Your task to perform on an android device: Show me the alarms in the clock app Image 0: 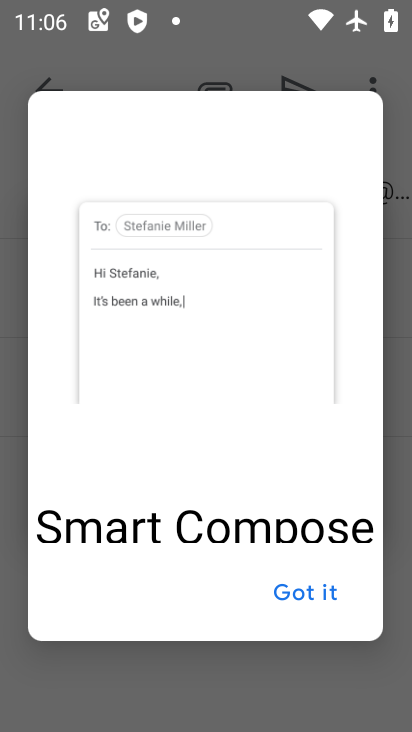
Step 0: press home button
Your task to perform on an android device: Show me the alarms in the clock app Image 1: 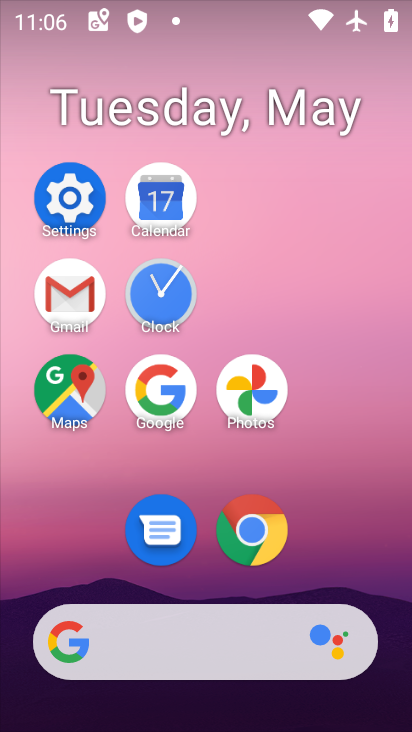
Step 1: click (172, 294)
Your task to perform on an android device: Show me the alarms in the clock app Image 2: 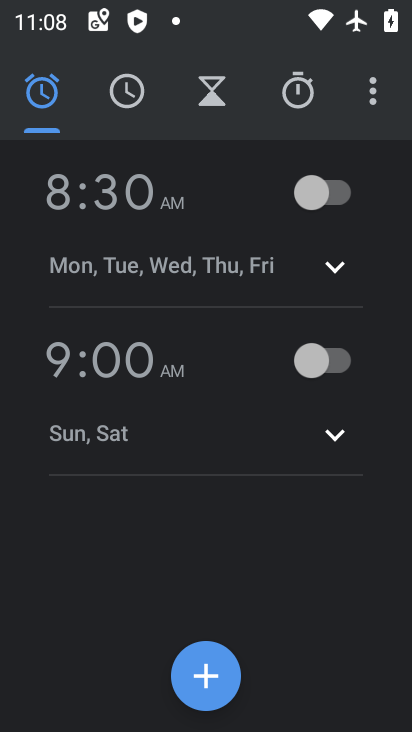
Step 2: task complete